Your task to perform on an android device: Add apple airpods pro to the cart on bestbuy, then select checkout. Image 0: 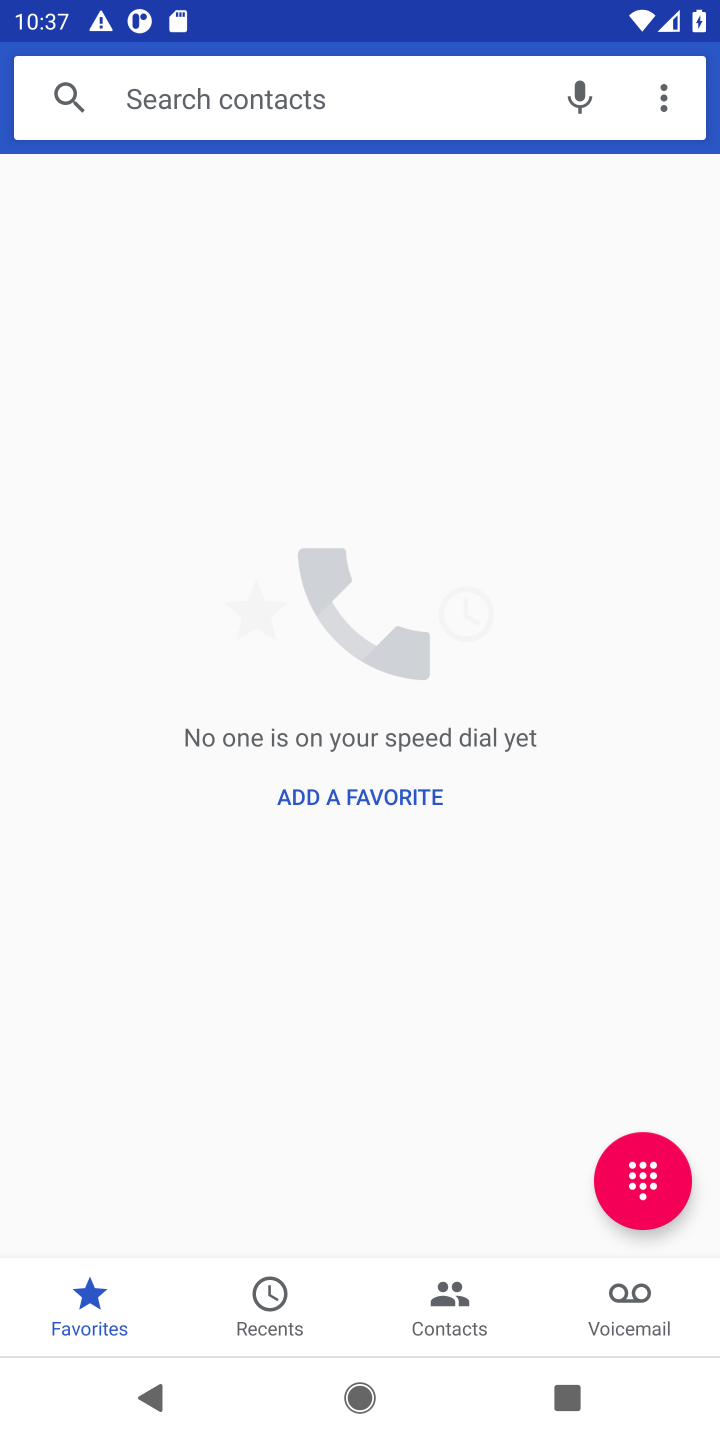
Step 0: press home button
Your task to perform on an android device: Add apple airpods pro to the cart on bestbuy, then select checkout. Image 1: 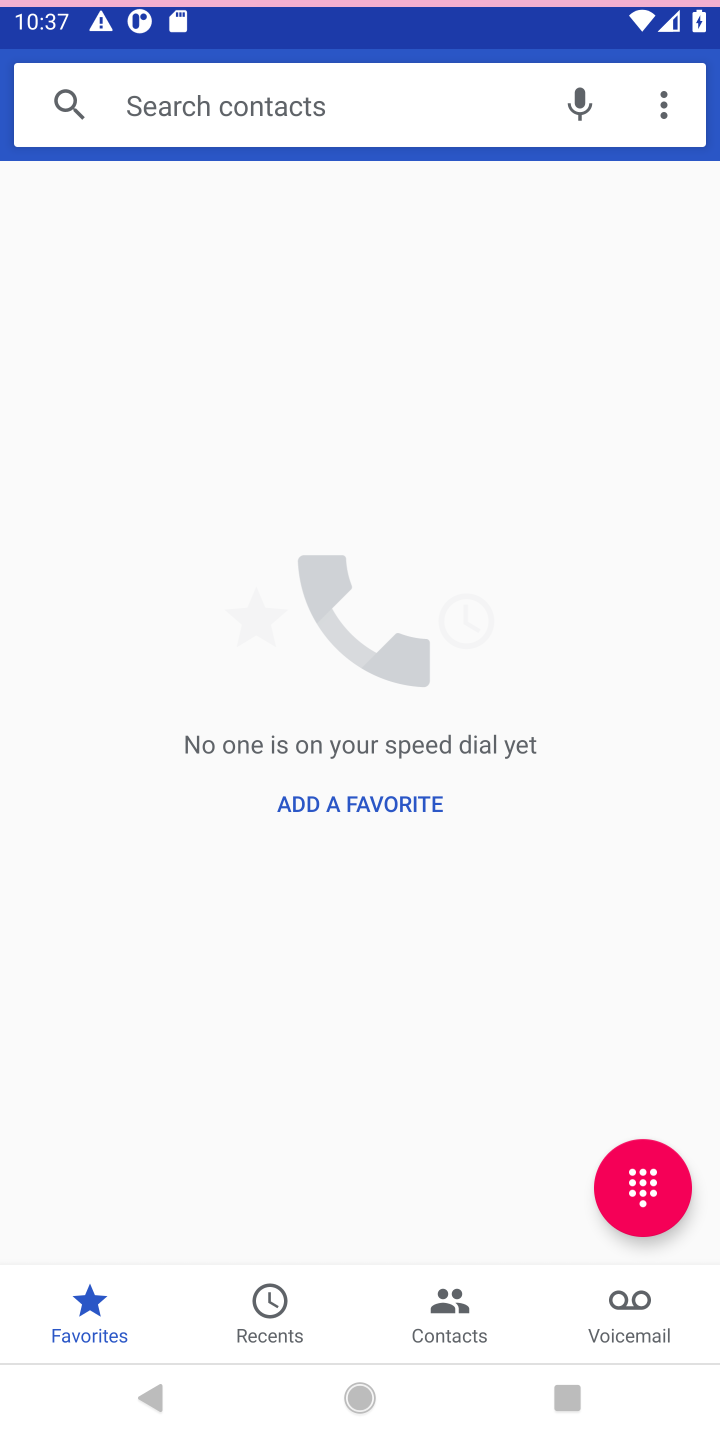
Step 1: press home button
Your task to perform on an android device: Add apple airpods pro to the cart on bestbuy, then select checkout. Image 2: 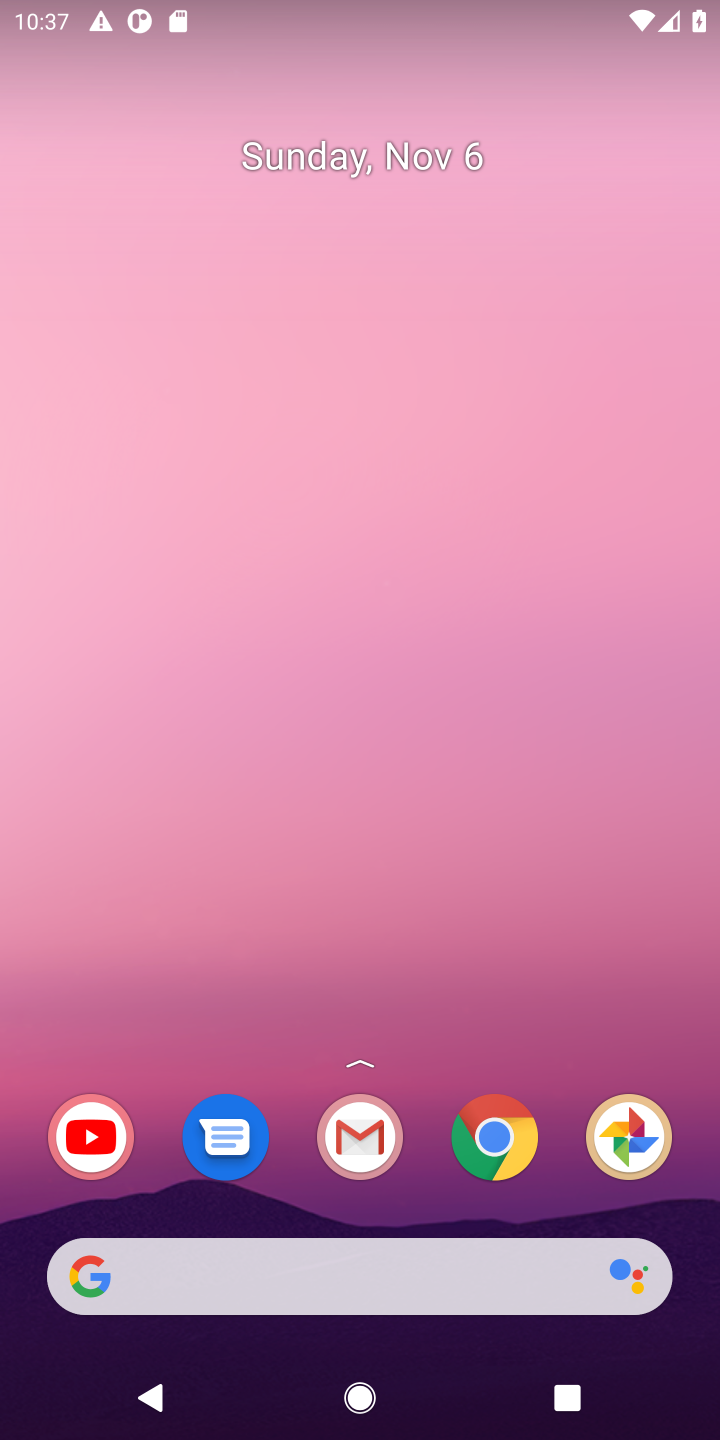
Step 2: drag from (299, 1213) to (329, 152)
Your task to perform on an android device: Add apple airpods pro to the cart on bestbuy, then select checkout. Image 3: 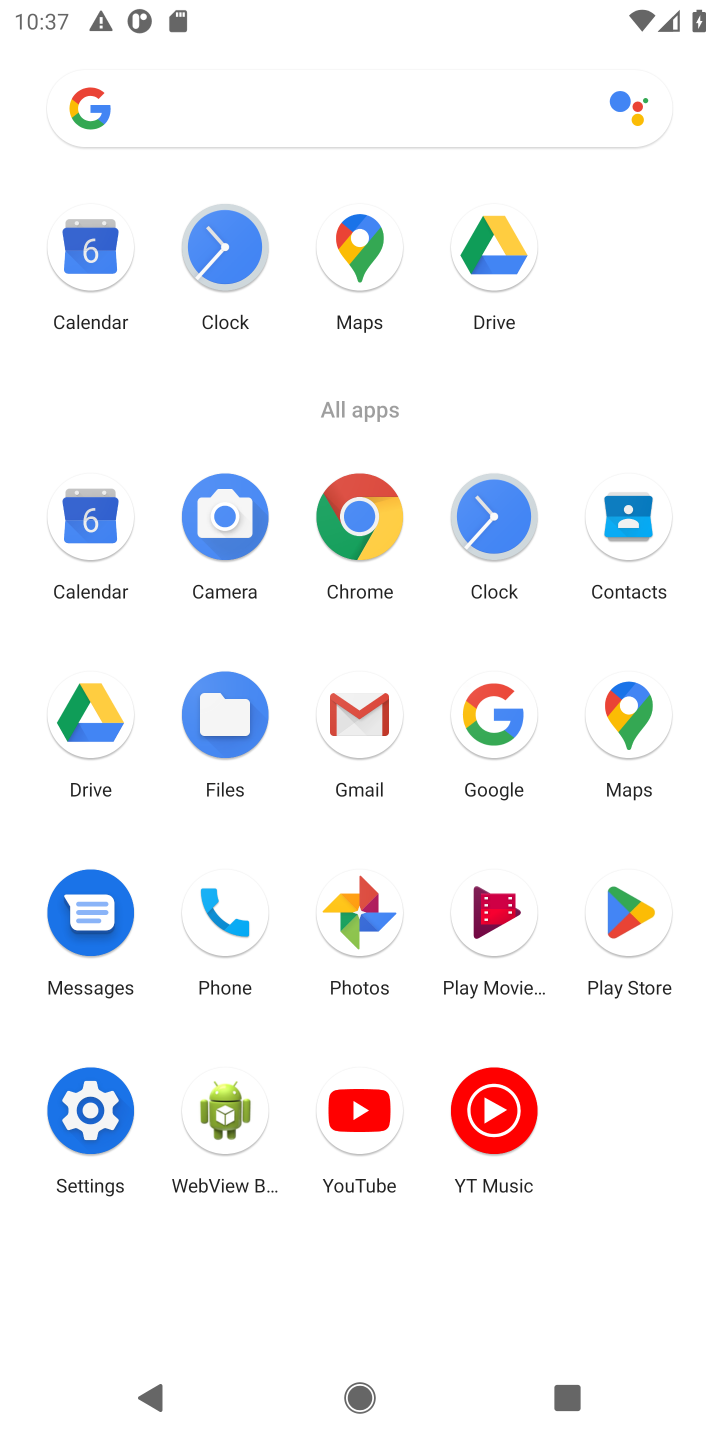
Step 3: click (352, 529)
Your task to perform on an android device: Add apple airpods pro to the cart on bestbuy, then select checkout. Image 4: 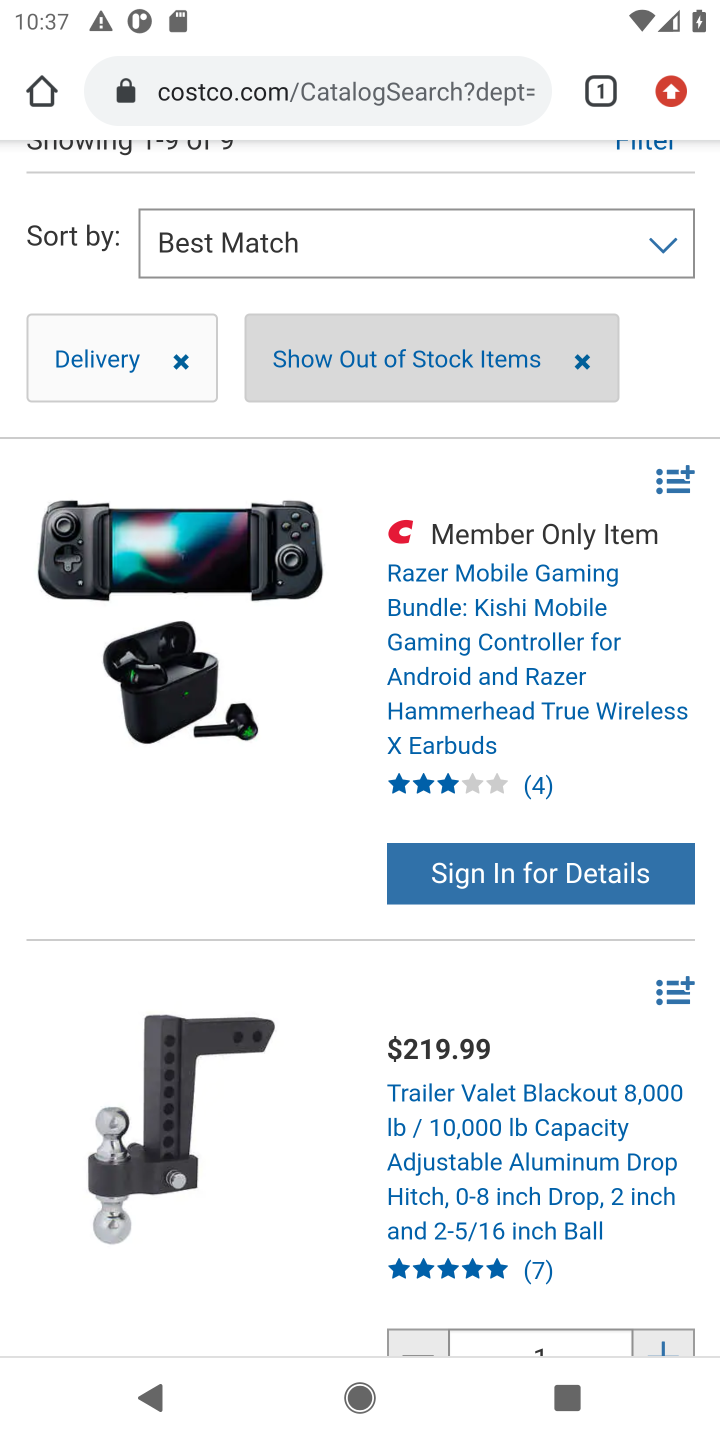
Step 4: click (457, 107)
Your task to perform on an android device: Add apple airpods pro to the cart on bestbuy, then select checkout. Image 5: 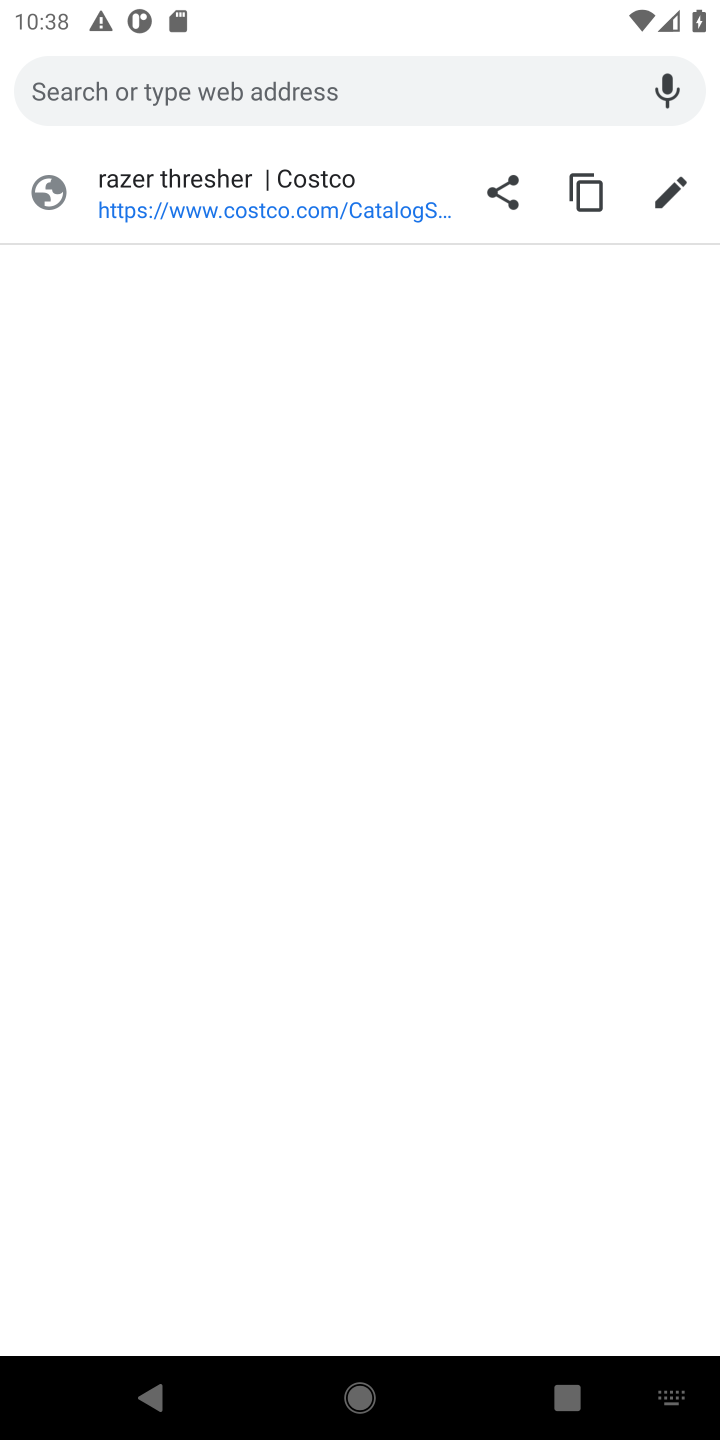
Step 5: type "bestbuy.com"
Your task to perform on an android device: Add apple airpods pro to the cart on bestbuy, then select checkout. Image 6: 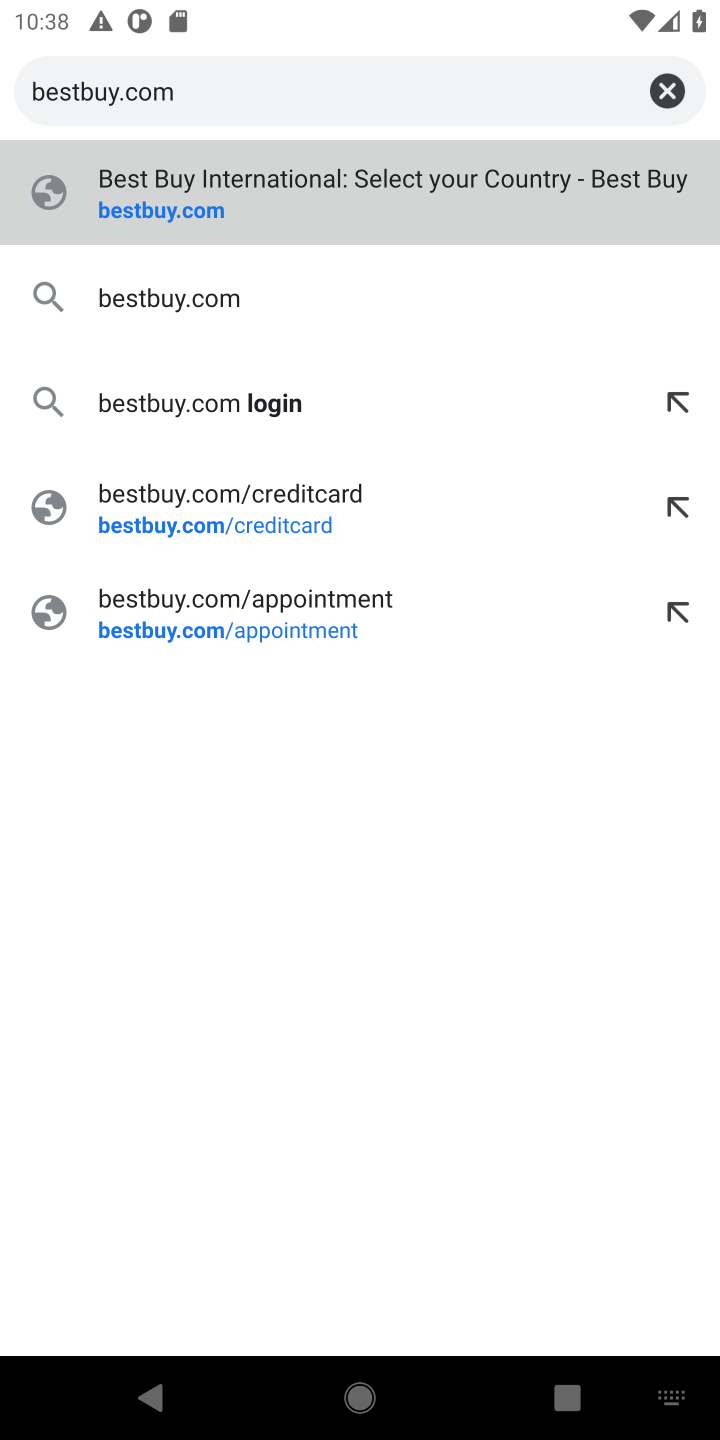
Step 6: press enter
Your task to perform on an android device: Add apple airpods pro to the cart on bestbuy, then select checkout. Image 7: 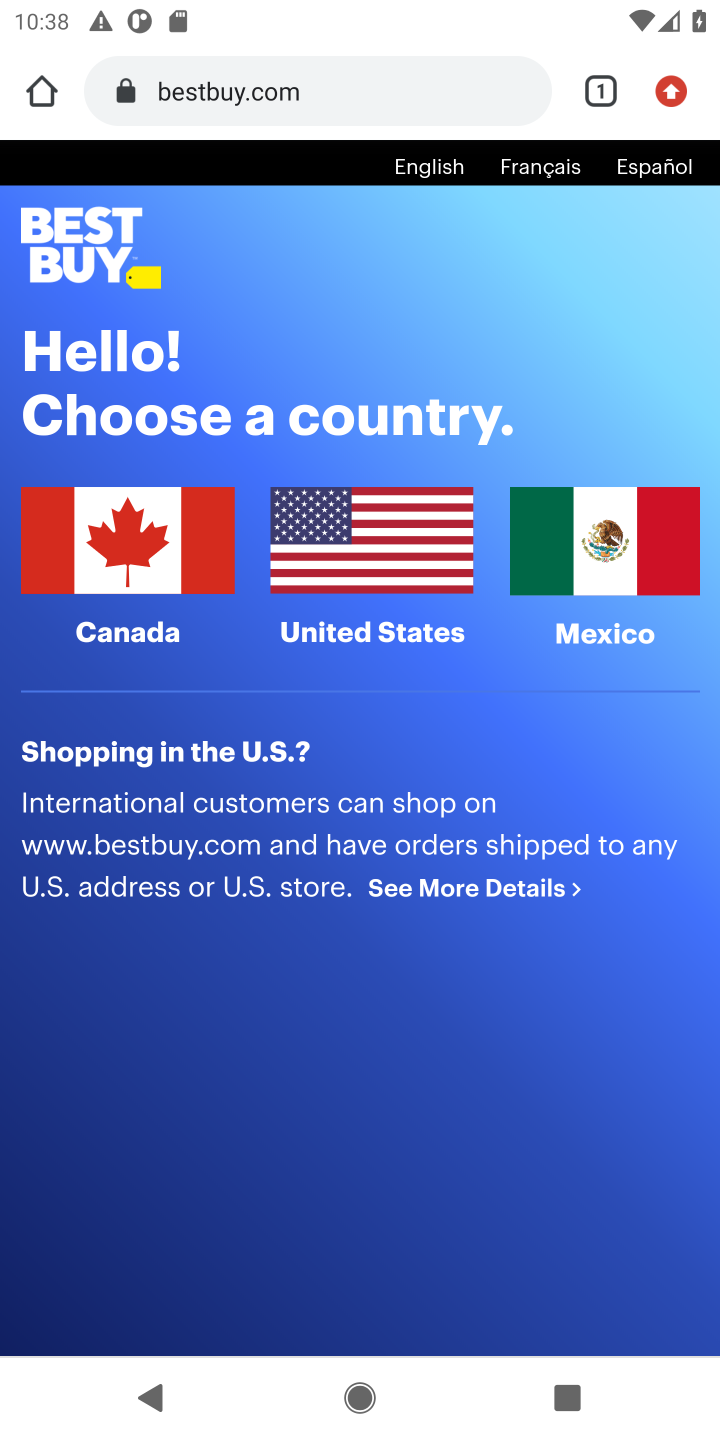
Step 7: click (125, 559)
Your task to perform on an android device: Add apple airpods pro to the cart on bestbuy, then select checkout. Image 8: 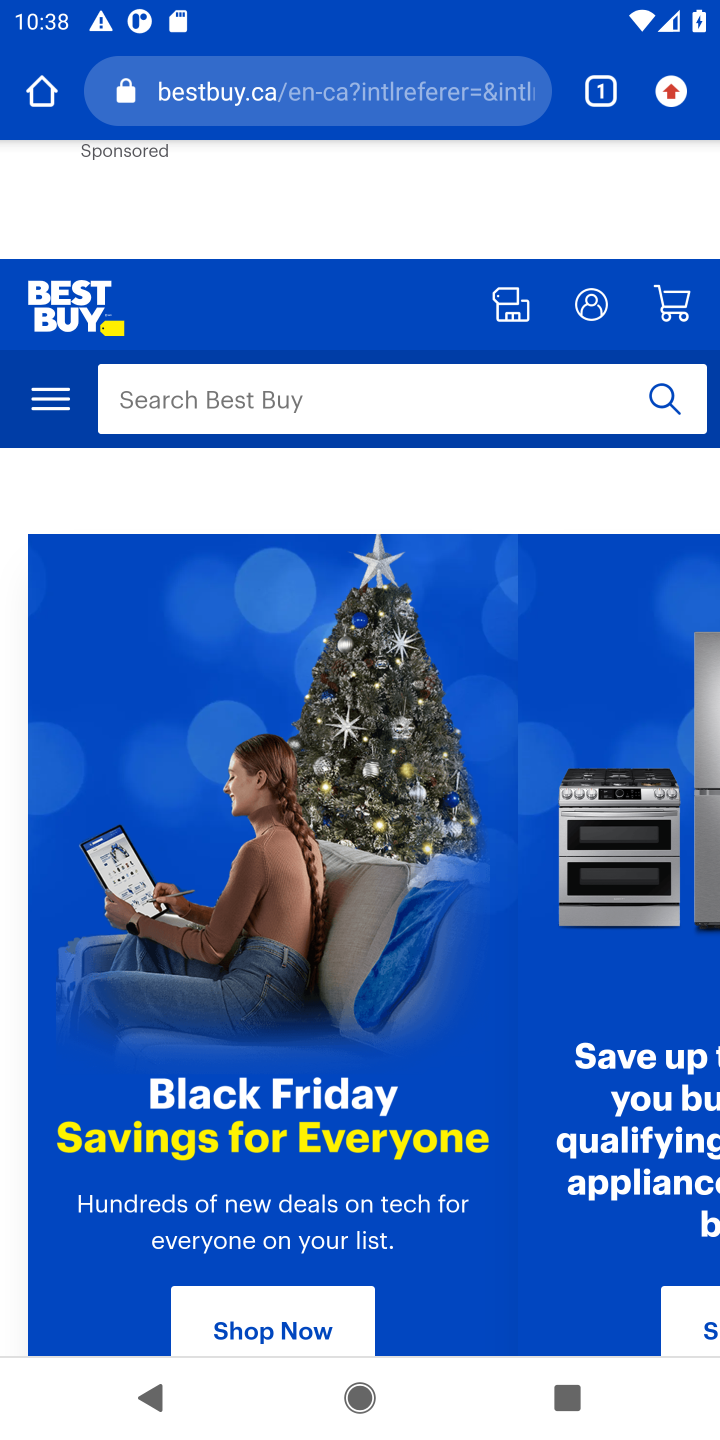
Step 8: click (322, 389)
Your task to perform on an android device: Add apple airpods pro to the cart on bestbuy, then select checkout. Image 9: 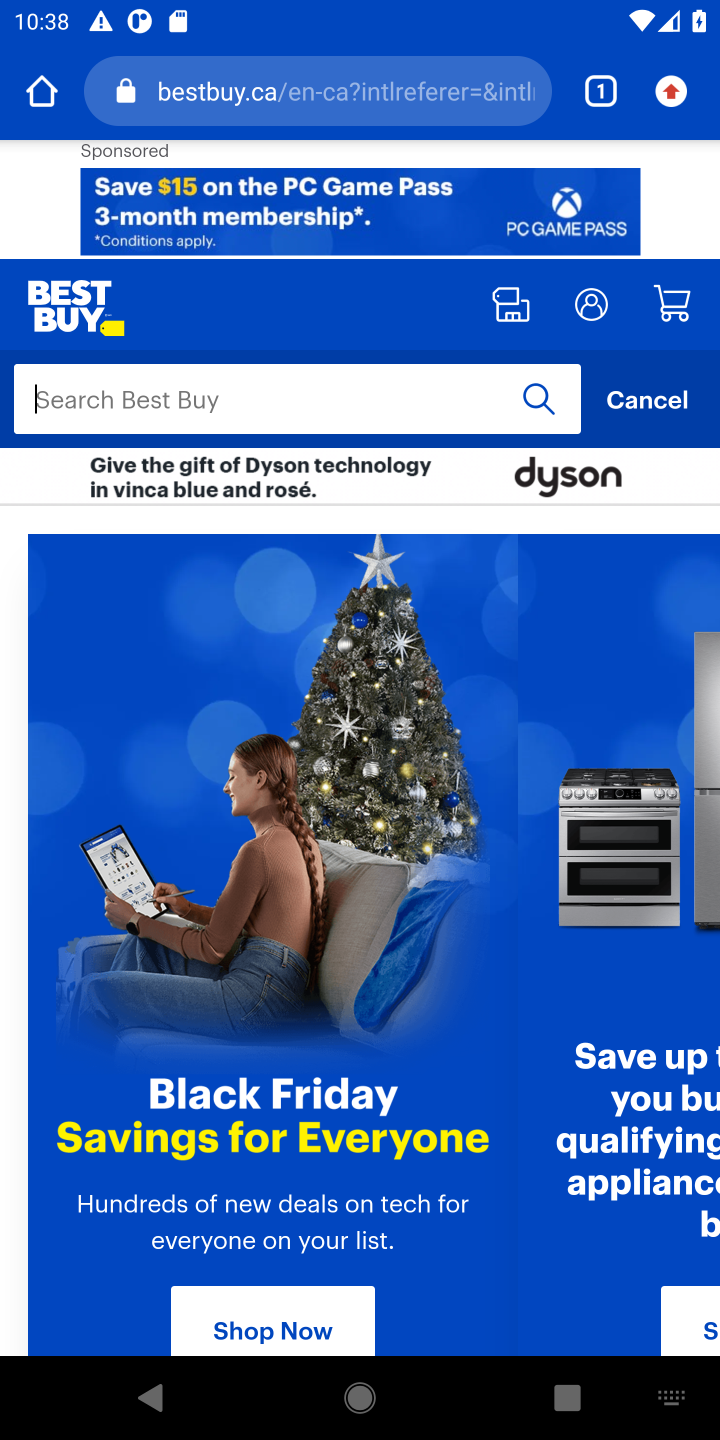
Step 9: type "apple airpods pro"
Your task to perform on an android device: Add apple airpods pro to the cart on bestbuy, then select checkout. Image 10: 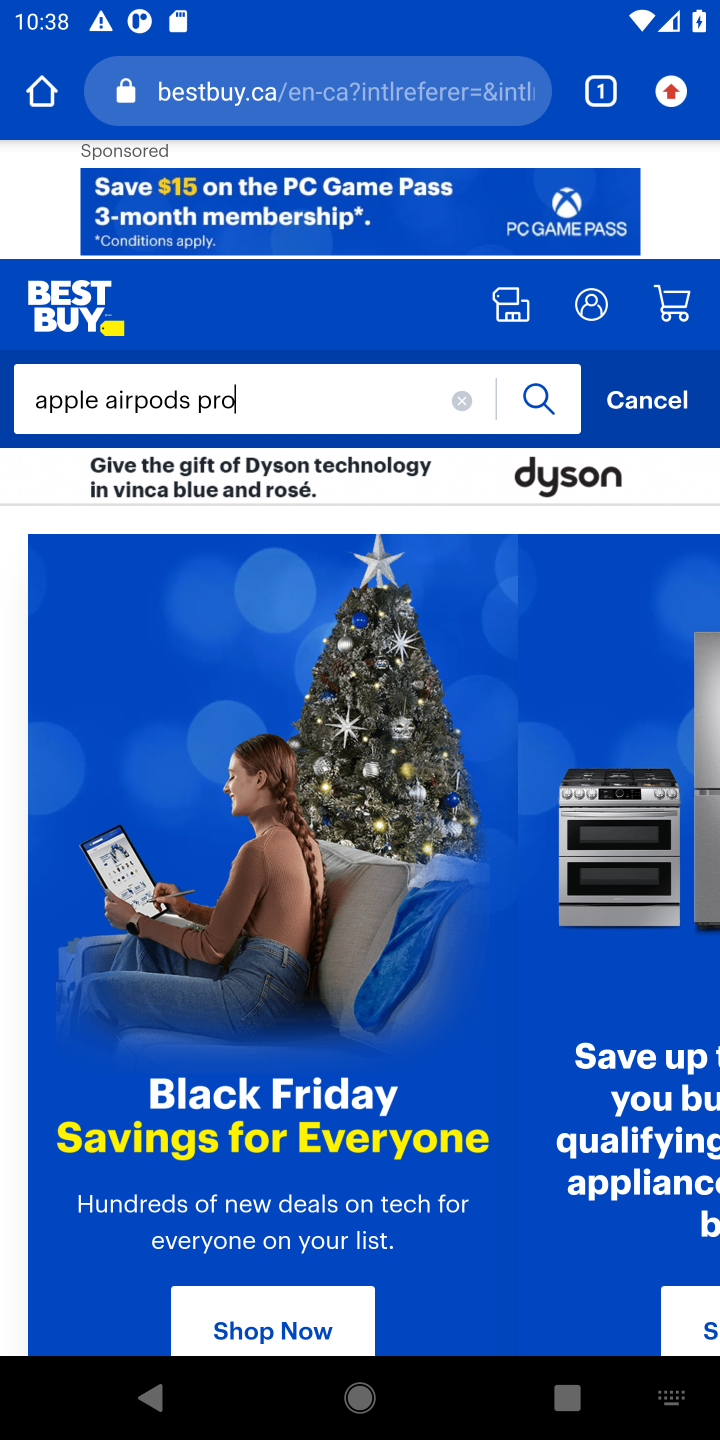
Step 10: press enter
Your task to perform on an android device: Add apple airpods pro to the cart on bestbuy, then select checkout. Image 11: 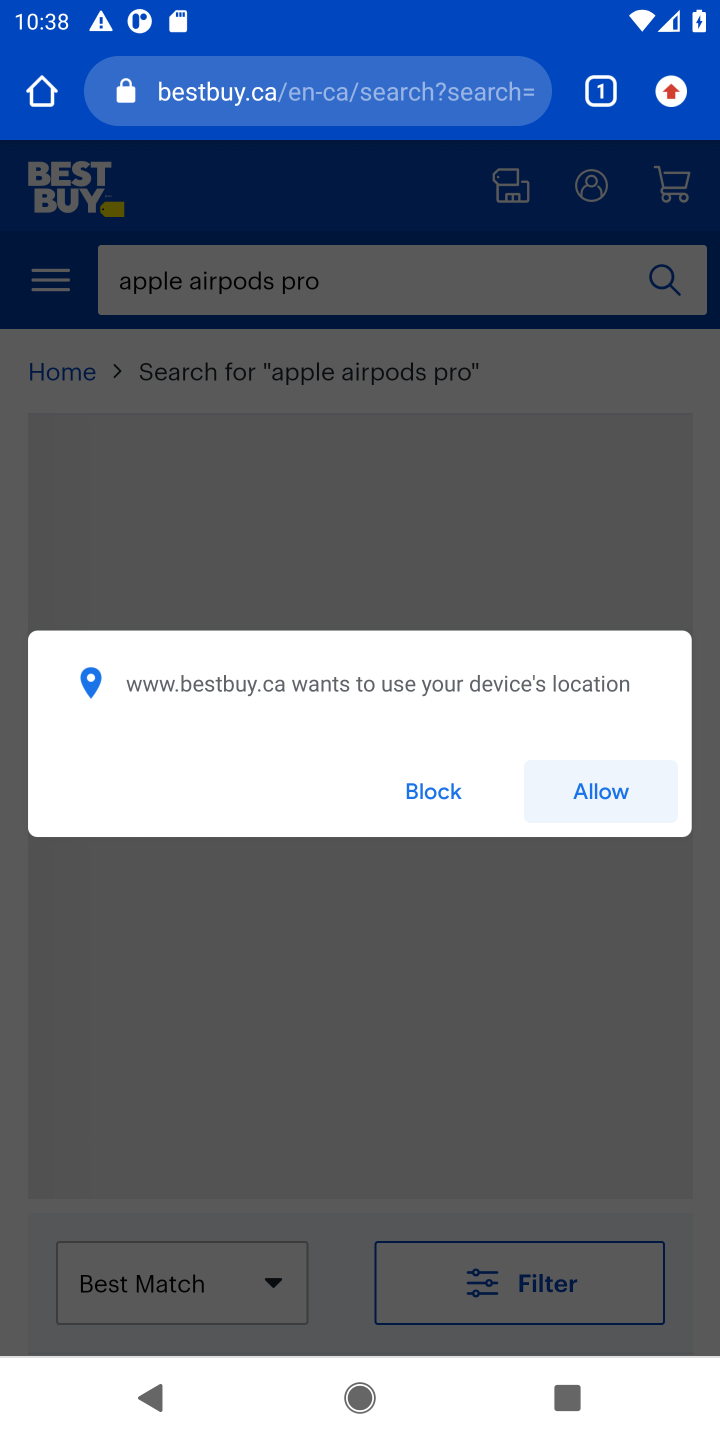
Step 11: click (417, 799)
Your task to perform on an android device: Add apple airpods pro to the cart on bestbuy, then select checkout. Image 12: 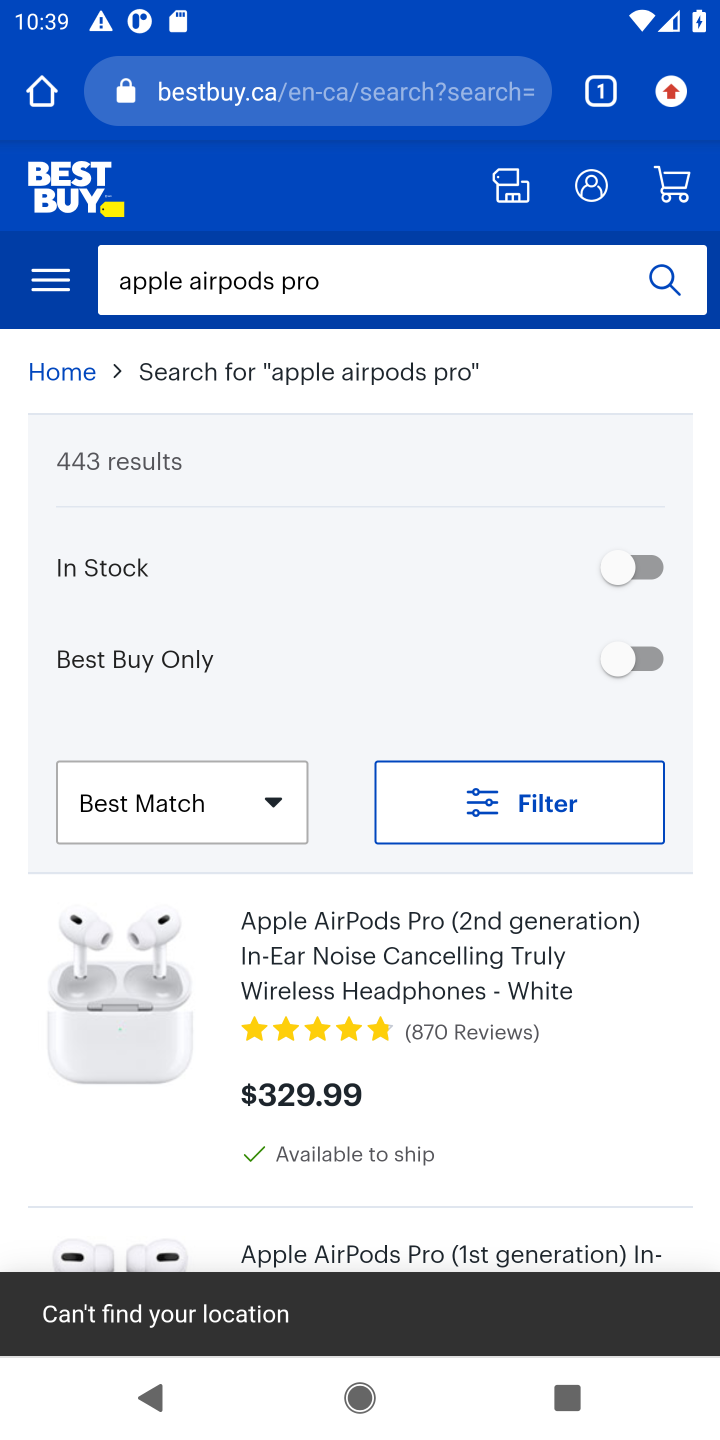
Step 12: drag from (497, 1010) to (409, 380)
Your task to perform on an android device: Add apple airpods pro to the cart on bestbuy, then select checkout. Image 13: 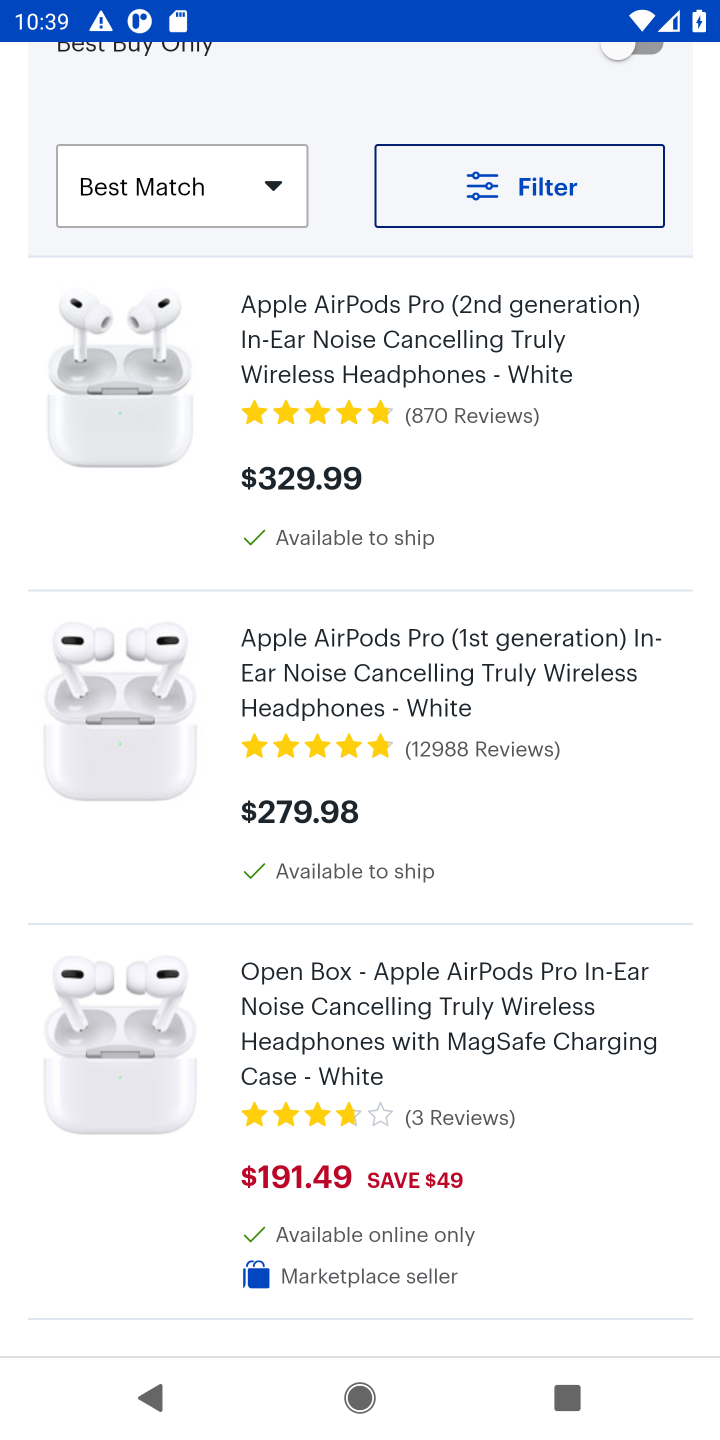
Step 13: click (339, 326)
Your task to perform on an android device: Add apple airpods pro to the cart on bestbuy, then select checkout. Image 14: 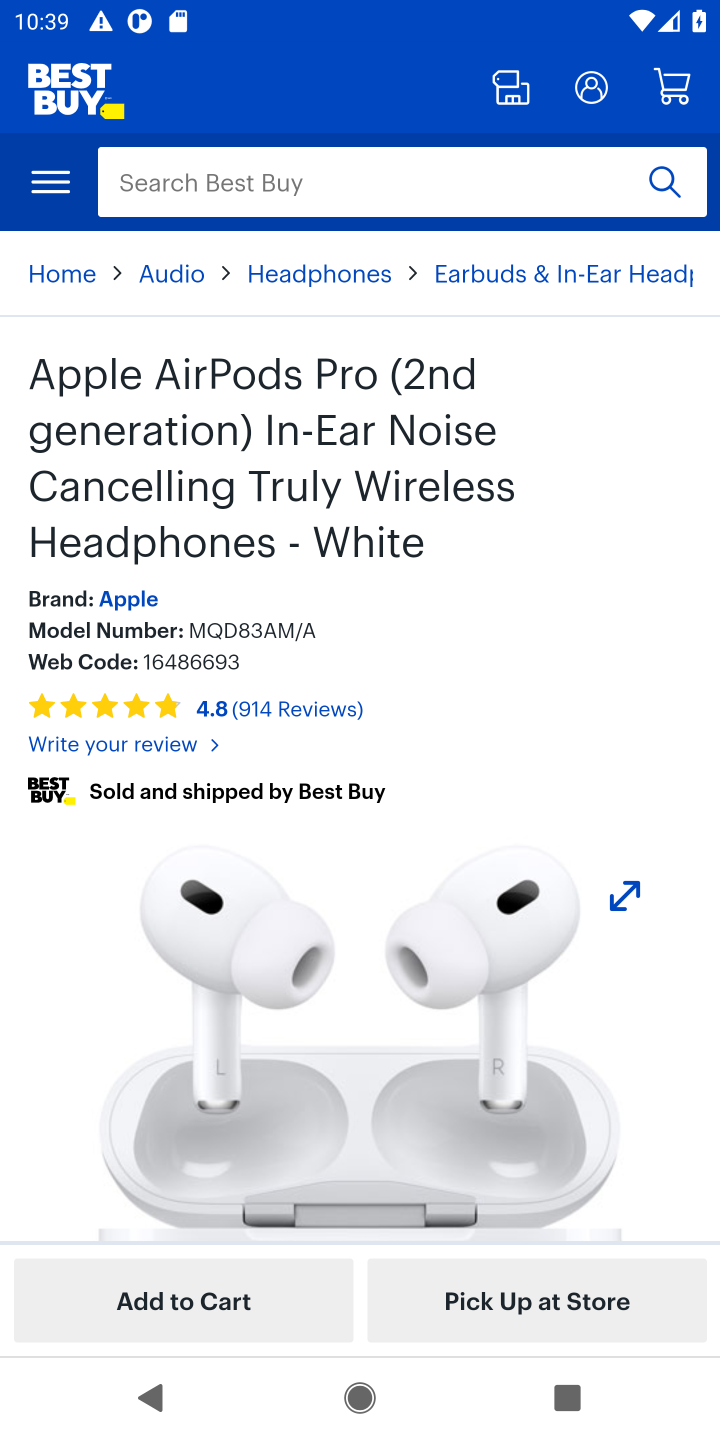
Step 14: drag from (454, 976) to (466, 135)
Your task to perform on an android device: Add apple airpods pro to the cart on bestbuy, then select checkout. Image 15: 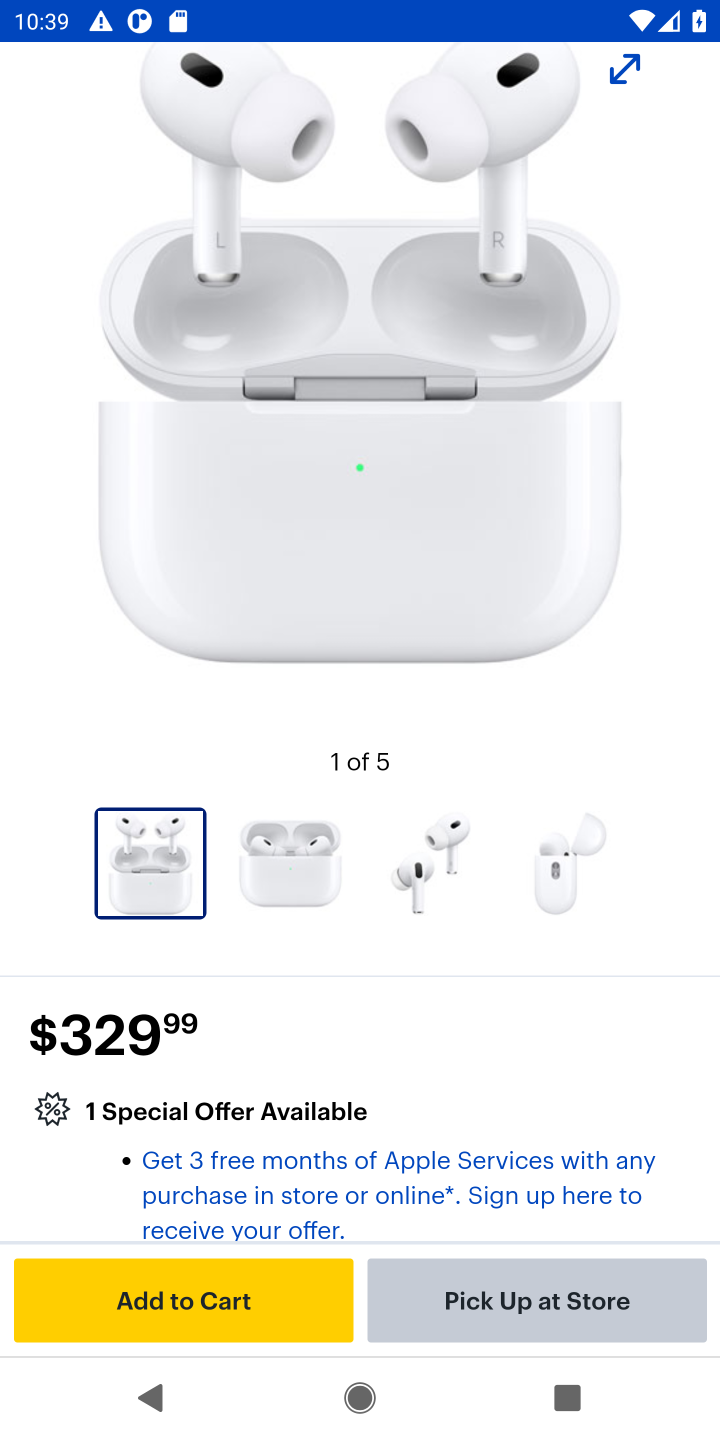
Step 15: click (235, 1278)
Your task to perform on an android device: Add apple airpods pro to the cart on bestbuy, then select checkout. Image 16: 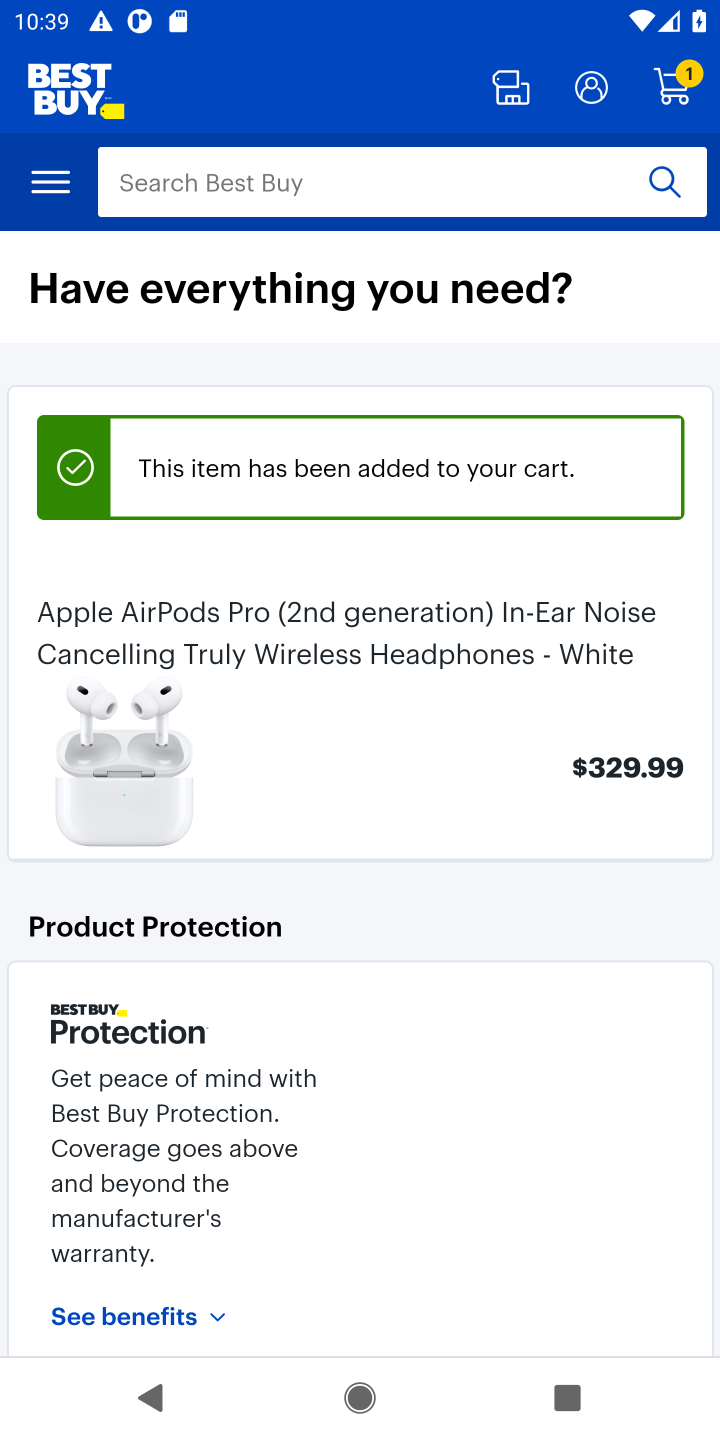
Step 16: drag from (458, 1185) to (421, 340)
Your task to perform on an android device: Add apple airpods pro to the cart on bestbuy, then select checkout. Image 17: 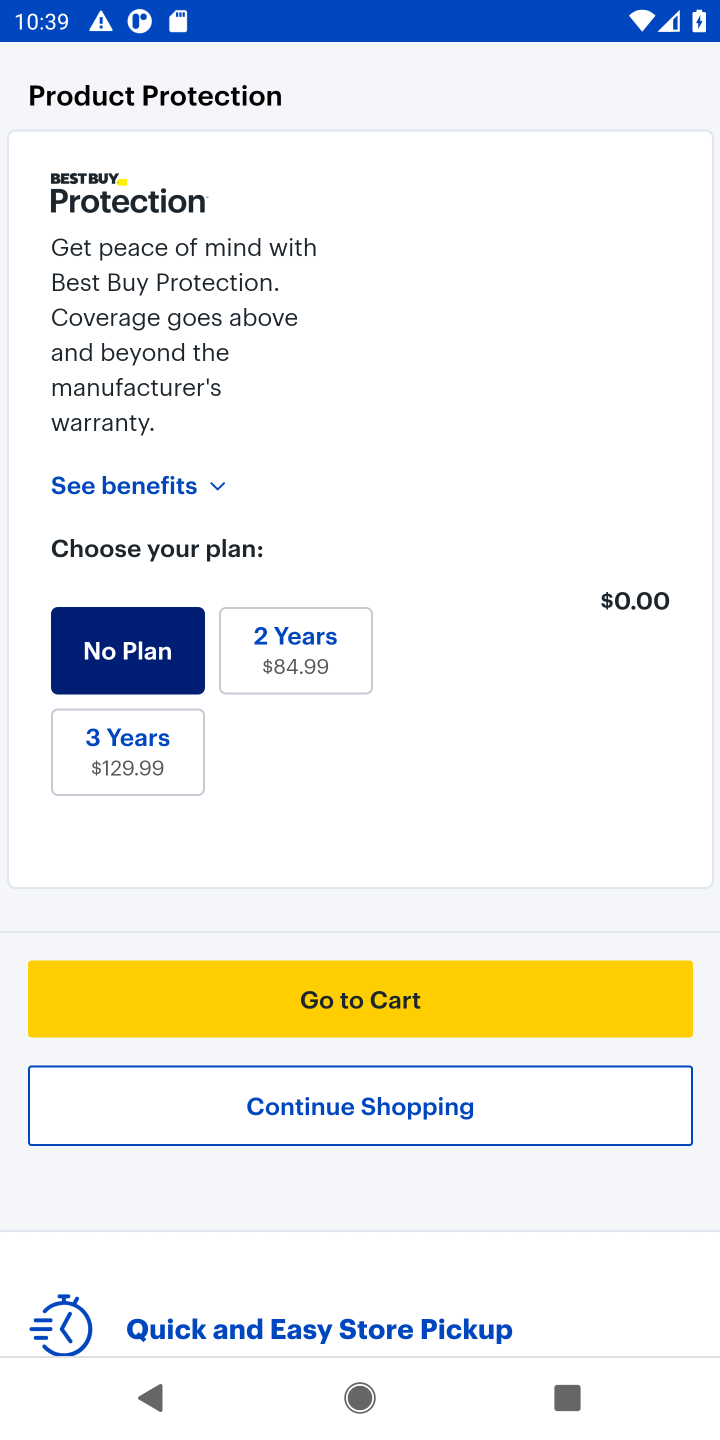
Step 17: drag from (533, 559) to (459, 279)
Your task to perform on an android device: Add apple airpods pro to the cart on bestbuy, then select checkout. Image 18: 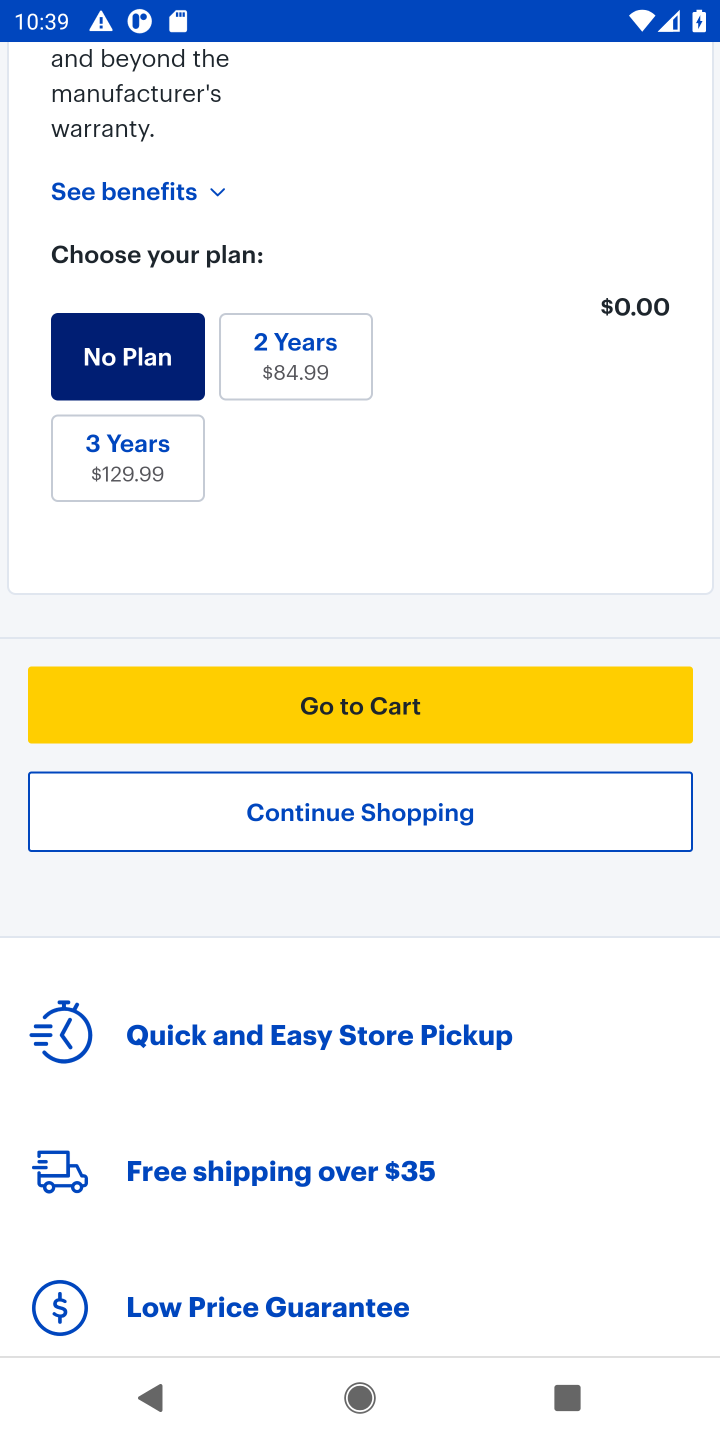
Step 18: click (365, 704)
Your task to perform on an android device: Add apple airpods pro to the cart on bestbuy, then select checkout. Image 19: 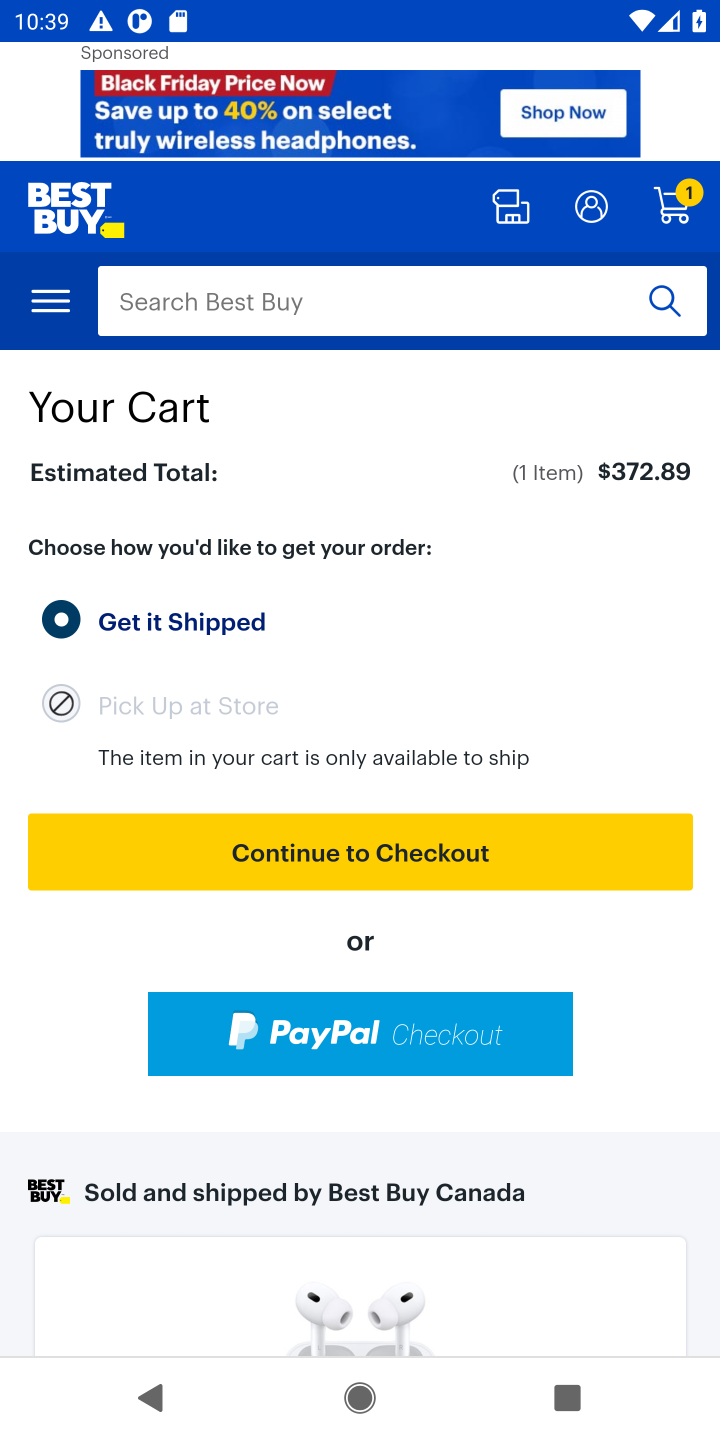
Step 19: click (383, 852)
Your task to perform on an android device: Add apple airpods pro to the cart on bestbuy, then select checkout. Image 20: 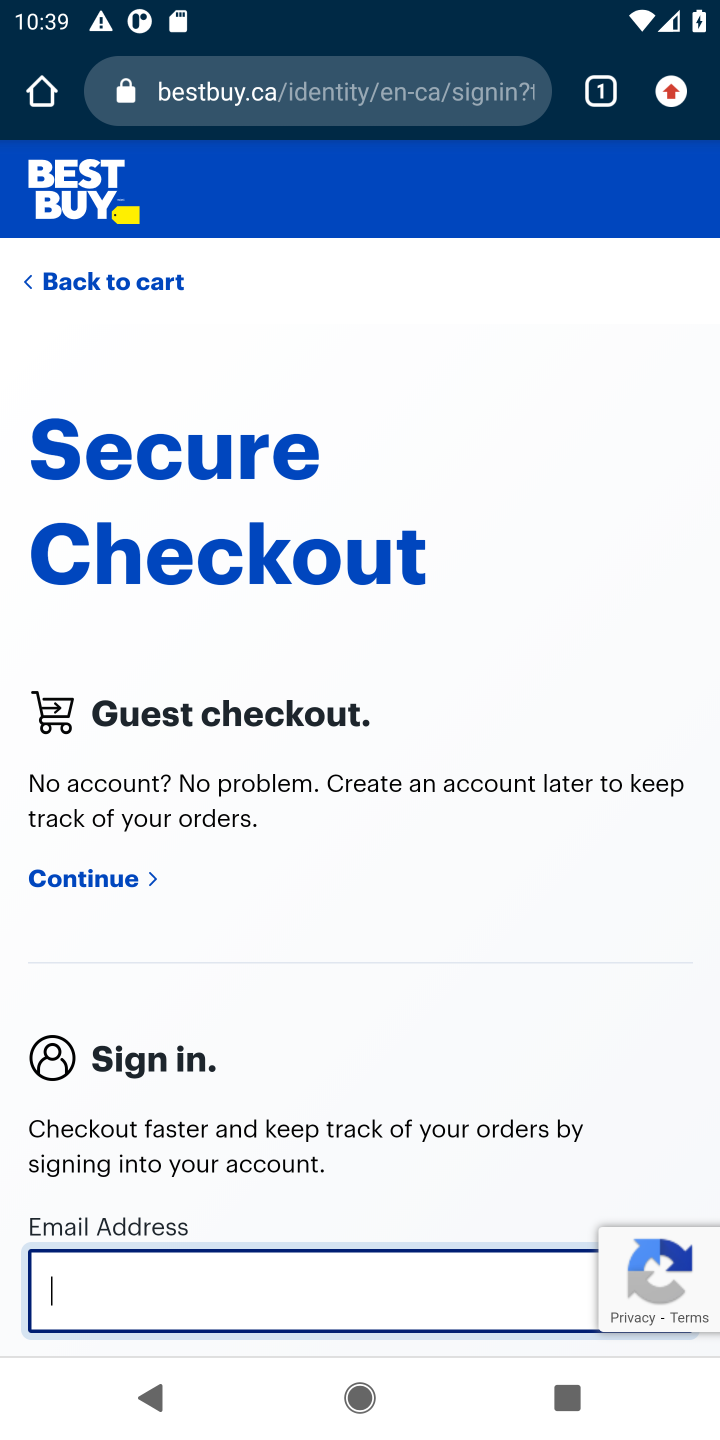
Step 20: task complete